Your task to perform on an android device: Open Amazon Image 0: 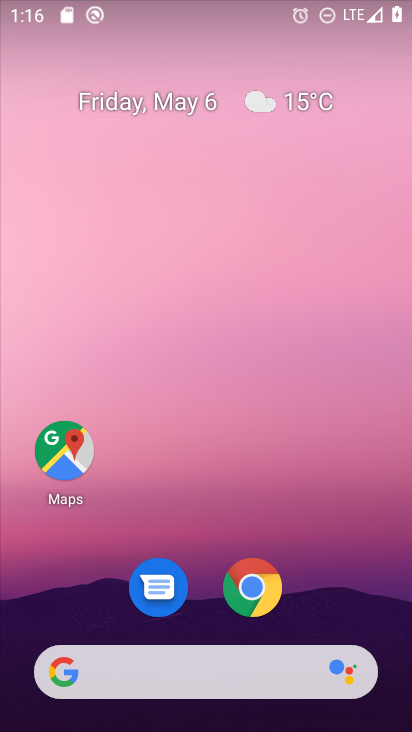
Step 0: click (264, 582)
Your task to perform on an android device: Open Amazon Image 1: 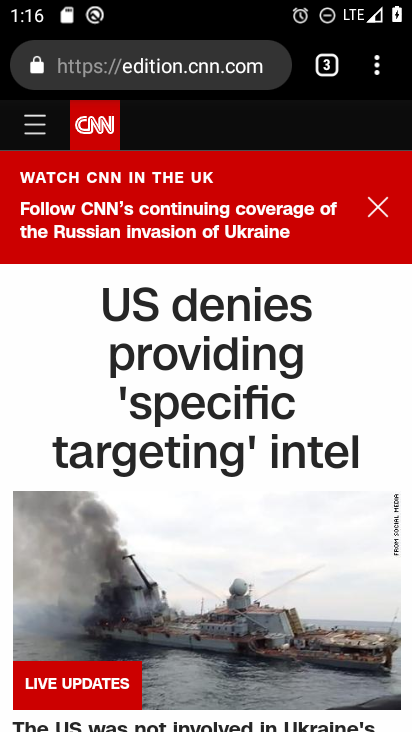
Step 1: click (326, 59)
Your task to perform on an android device: Open Amazon Image 2: 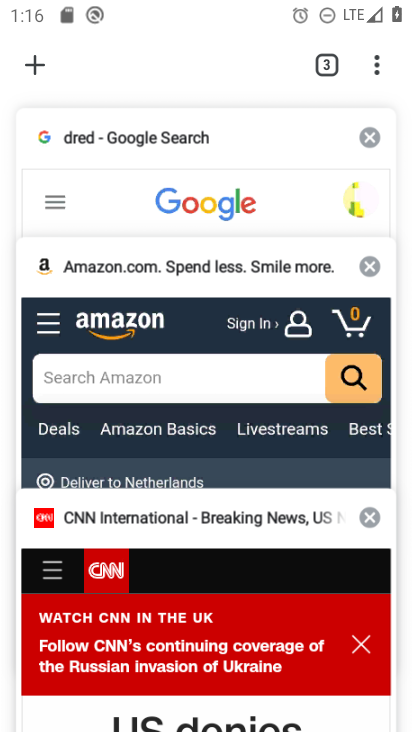
Step 2: click (34, 60)
Your task to perform on an android device: Open Amazon Image 3: 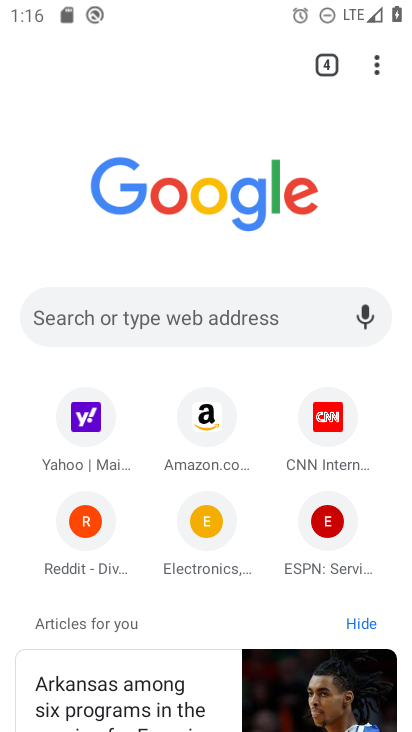
Step 3: click (228, 417)
Your task to perform on an android device: Open Amazon Image 4: 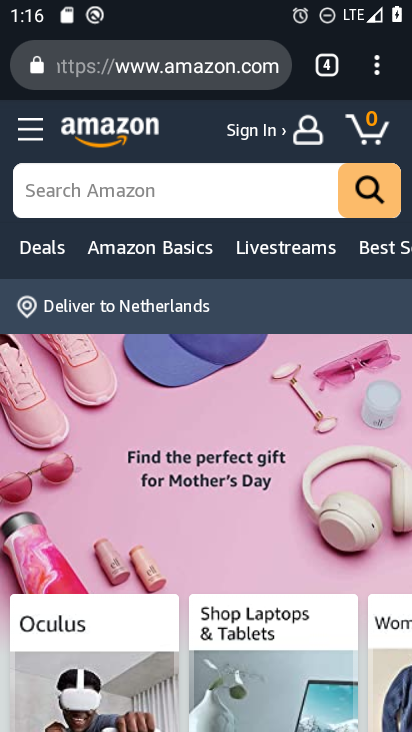
Step 4: task complete